Your task to perform on an android device: Go to Google Image 0: 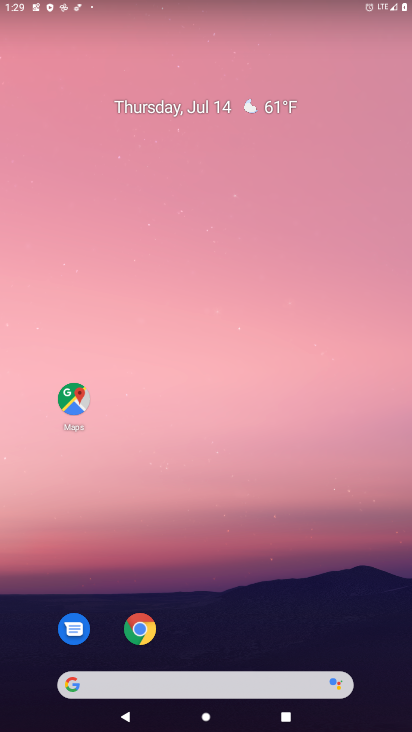
Step 0: click (81, 690)
Your task to perform on an android device: Go to Google Image 1: 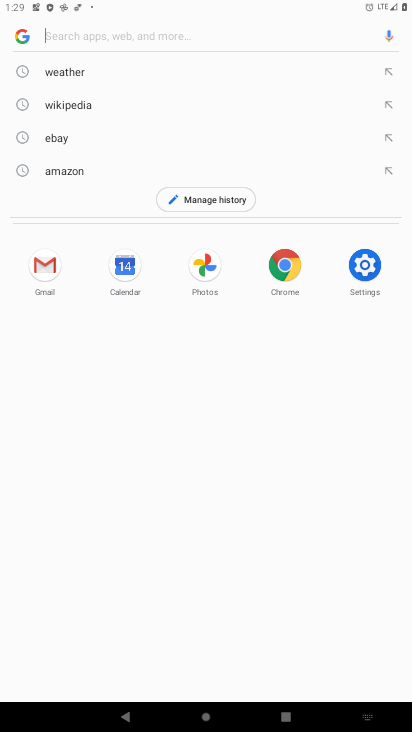
Step 1: click (19, 35)
Your task to perform on an android device: Go to Google Image 2: 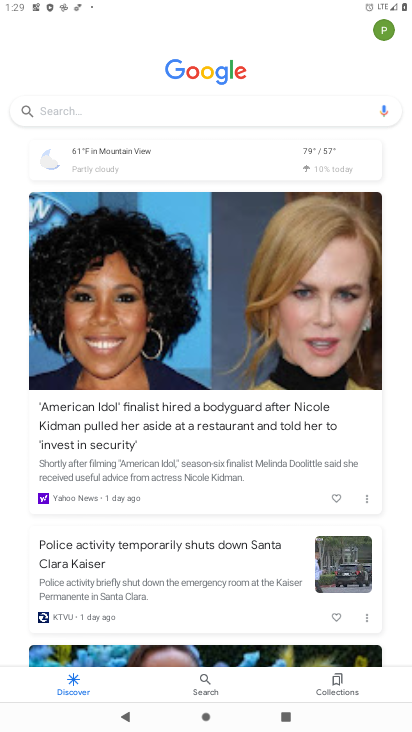
Step 2: task complete